Your task to perform on an android device: Open calendar and show me the fourth week of next month Image 0: 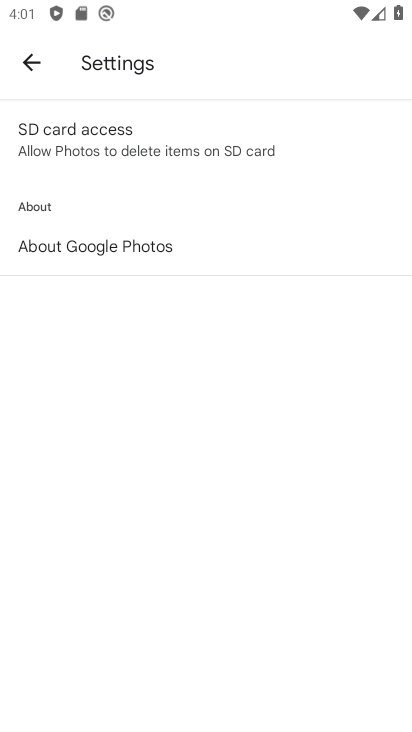
Step 0: click (16, 58)
Your task to perform on an android device: Open calendar and show me the fourth week of next month Image 1: 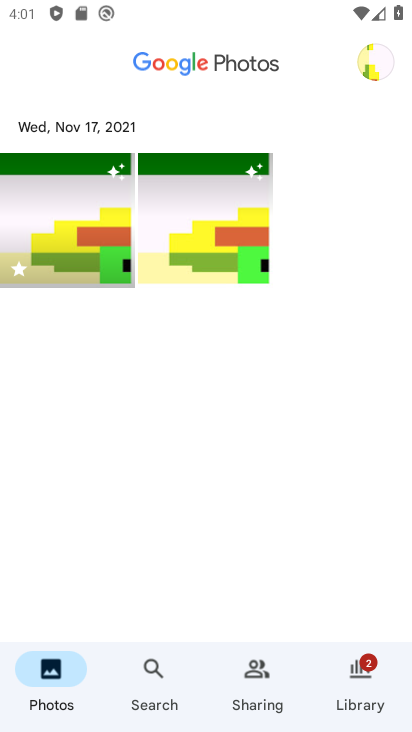
Step 1: press home button
Your task to perform on an android device: Open calendar and show me the fourth week of next month Image 2: 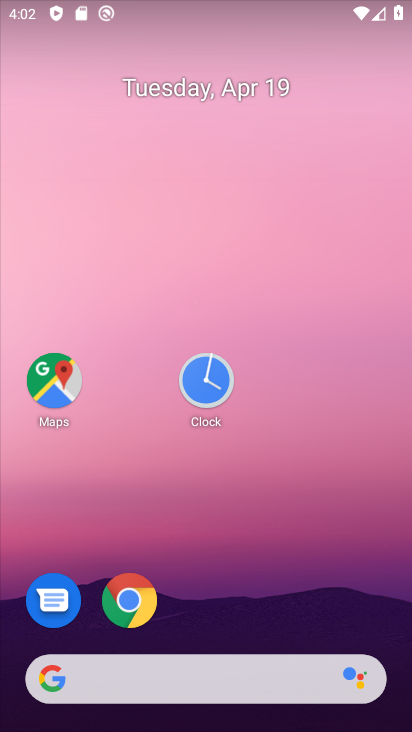
Step 2: drag from (302, 532) to (87, 27)
Your task to perform on an android device: Open calendar and show me the fourth week of next month Image 3: 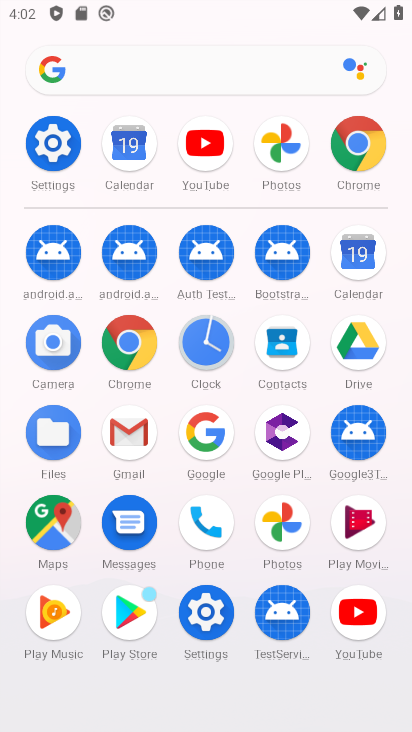
Step 3: click (363, 256)
Your task to perform on an android device: Open calendar and show me the fourth week of next month Image 4: 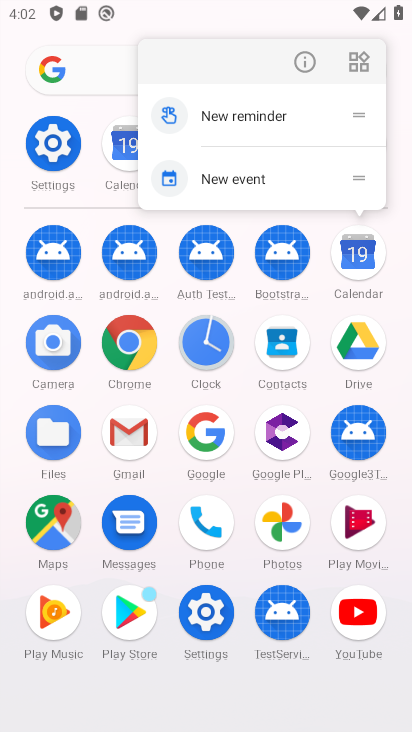
Step 4: click (363, 256)
Your task to perform on an android device: Open calendar and show me the fourth week of next month Image 5: 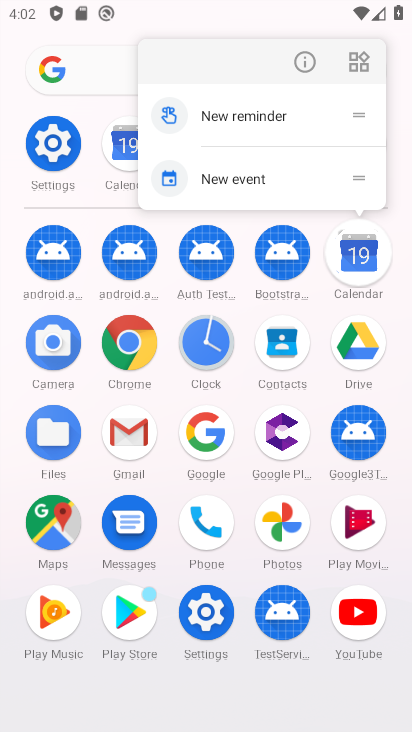
Step 5: click (363, 256)
Your task to perform on an android device: Open calendar and show me the fourth week of next month Image 6: 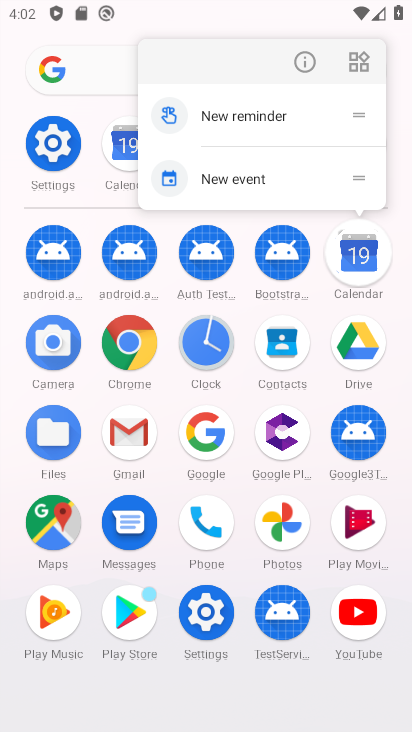
Step 6: click (363, 256)
Your task to perform on an android device: Open calendar and show me the fourth week of next month Image 7: 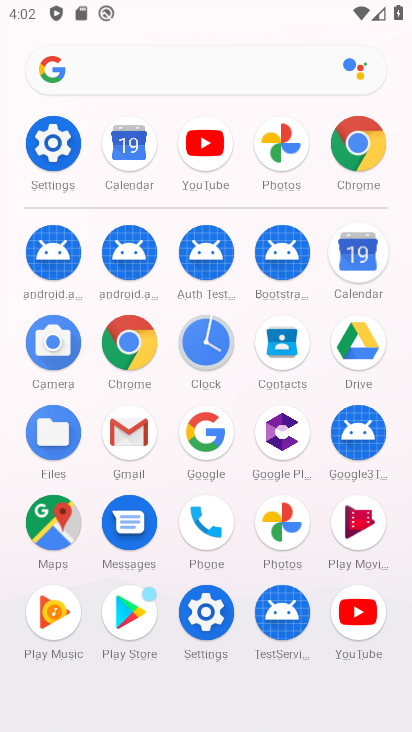
Step 7: click (363, 256)
Your task to perform on an android device: Open calendar and show me the fourth week of next month Image 8: 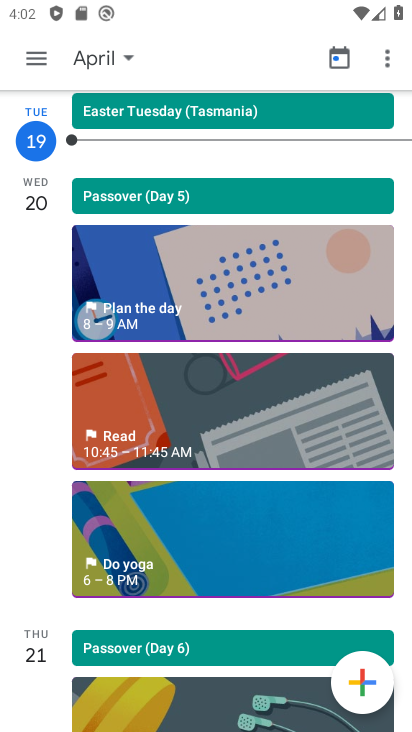
Step 8: click (362, 256)
Your task to perform on an android device: Open calendar and show me the fourth week of next month Image 9: 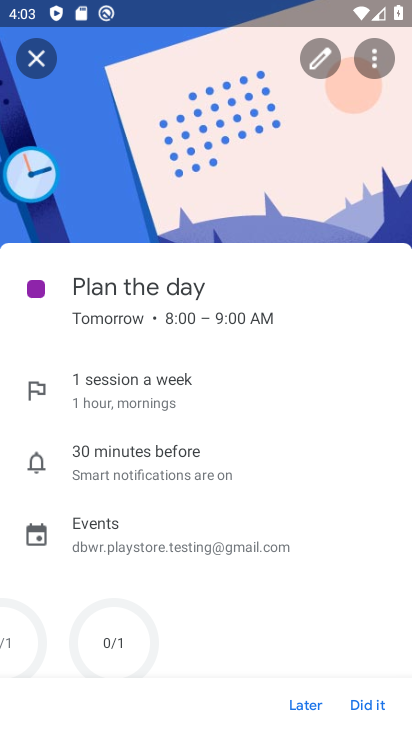
Step 9: click (44, 54)
Your task to perform on an android device: Open calendar and show me the fourth week of next month Image 10: 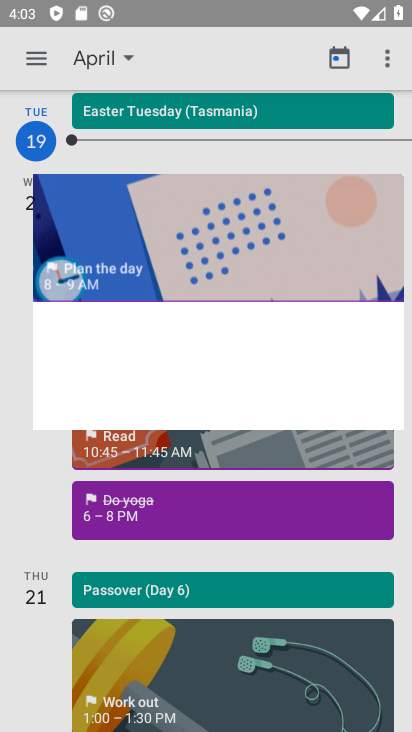
Step 10: click (37, 53)
Your task to perform on an android device: Open calendar and show me the fourth week of next month Image 11: 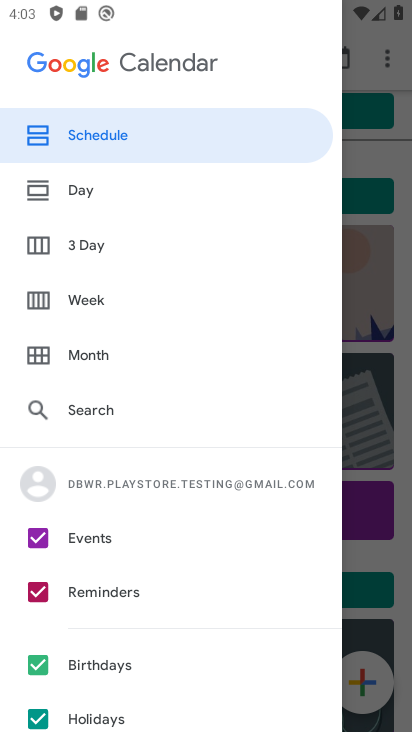
Step 11: click (44, 57)
Your task to perform on an android device: Open calendar and show me the fourth week of next month Image 12: 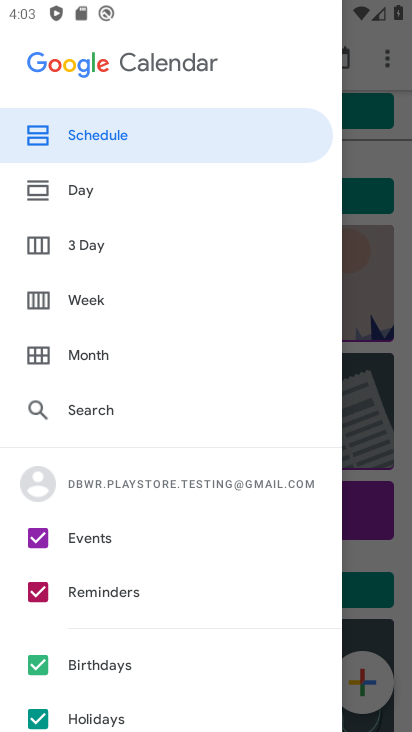
Step 12: click (362, 273)
Your task to perform on an android device: Open calendar and show me the fourth week of next month Image 13: 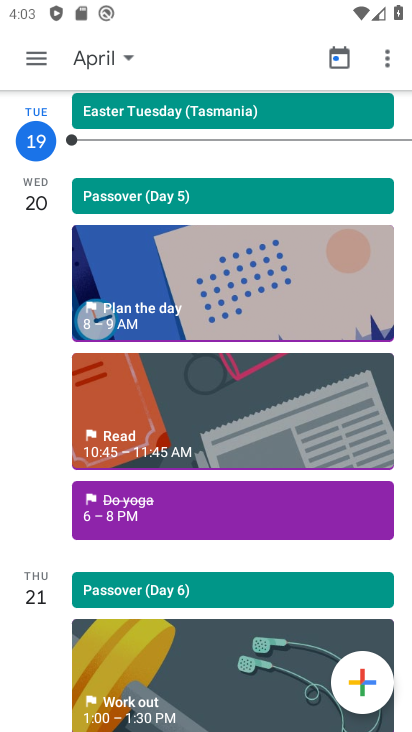
Step 13: click (122, 56)
Your task to perform on an android device: Open calendar and show me the fourth week of next month Image 14: 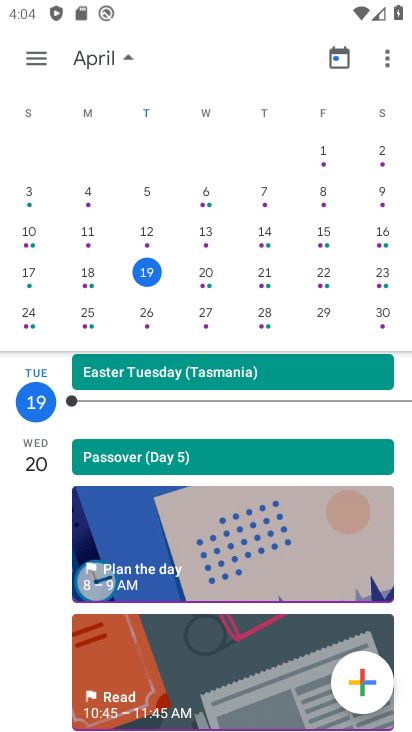
Step 14: click (122, 56)
Your task to perform on an android device: Open calendar and show me the fourth week of next month Image 15: 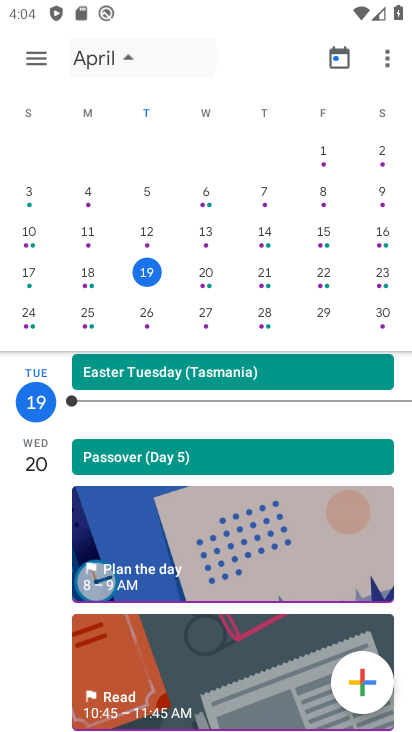
Step 15: click (120, 73)
Your task to perform on an android device: Open calendar and show me the fourth week of next month Image 16: 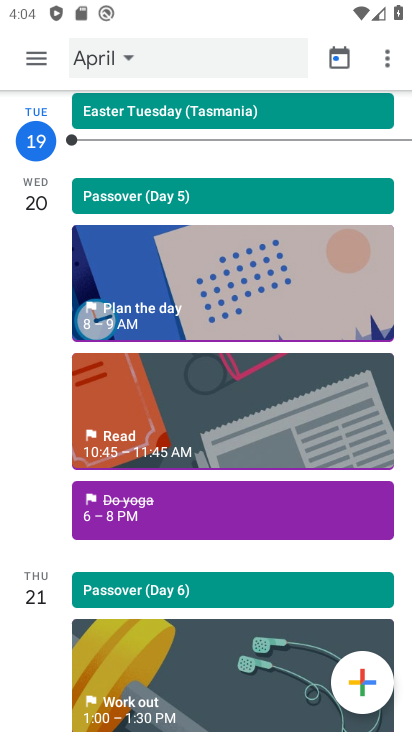
Step 16: click (129, 53)
Your task to perform on an android device: Open calendar and show me the fourth week of next month Image 17: 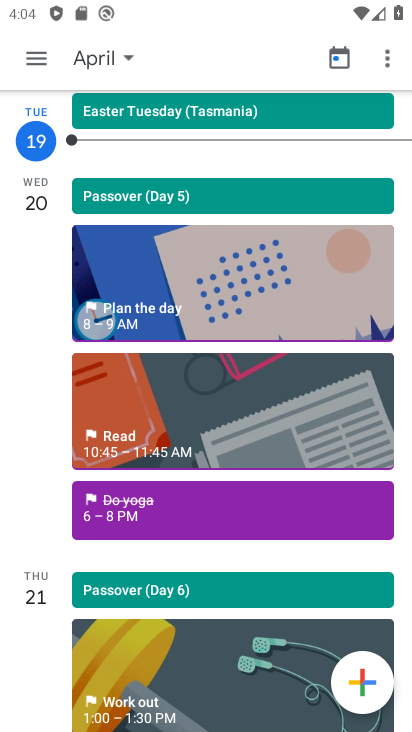
Step 17: click (131, 55)
Your task to perform on an android device: Open calendar and show me the fourth week of next month Image 18: 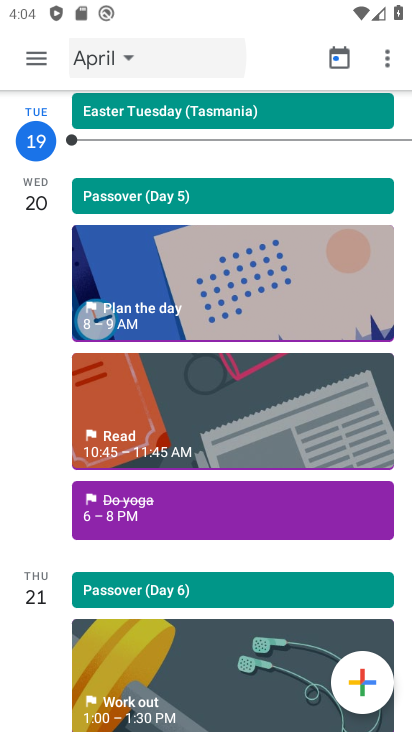
Step 18: click (131, 55)
Your task to perform on an android device: Open calendar and show me the fourth week of next month Image 19: 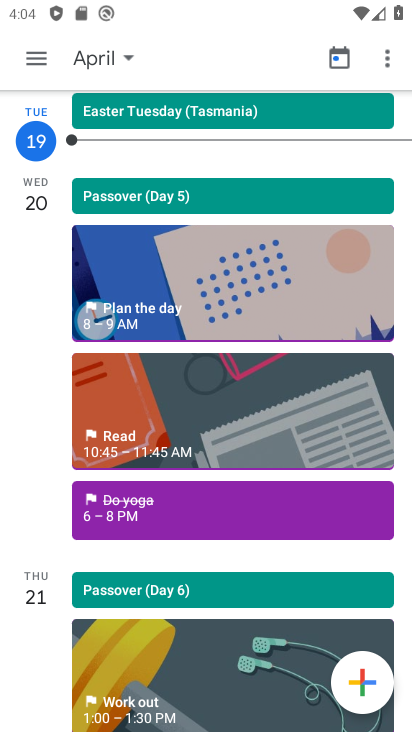
Step 19: click (132, 54)
Your task to perform on an android device: Open calendar and show me the fourth week of next month Image 20: 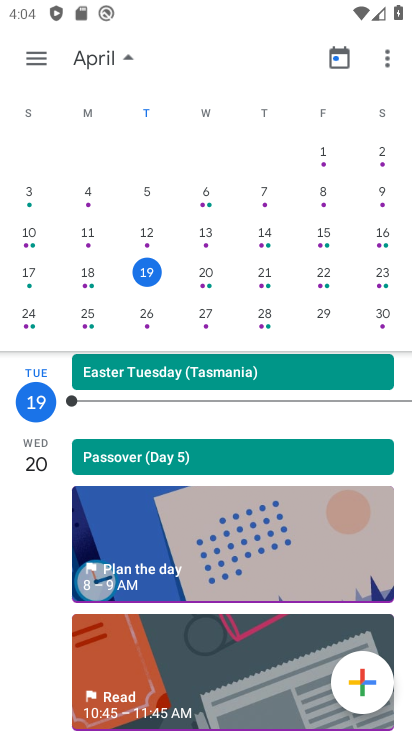
Step 20: click (128, 54)
Your task to perform on an android device: Open calendar and show me the fourth week of next month Image 21: 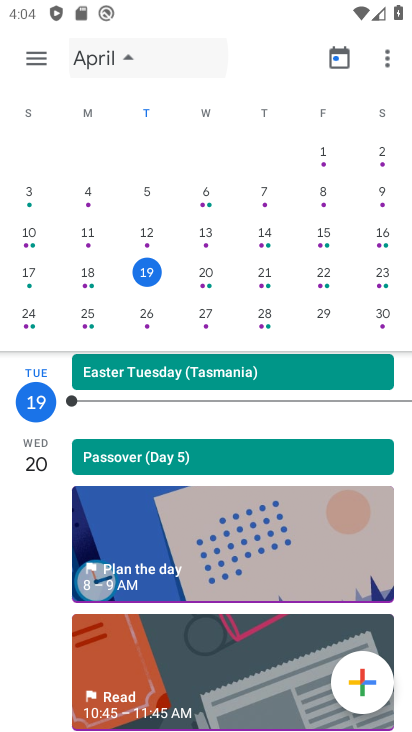
Step 21: click (128, 53)
Your task to perform on an android device: Open calendar and show me the fourth week of next month Image 22: 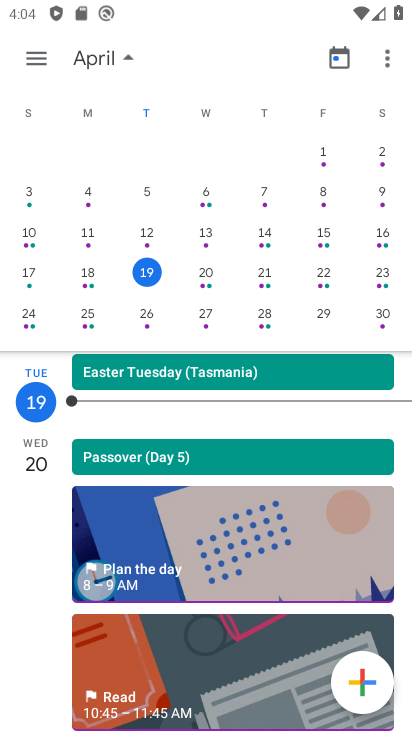
Step 22: click (126, 51)
Your task to perform on an android device: Open calendar and show me the fourth week of next month Image 23: 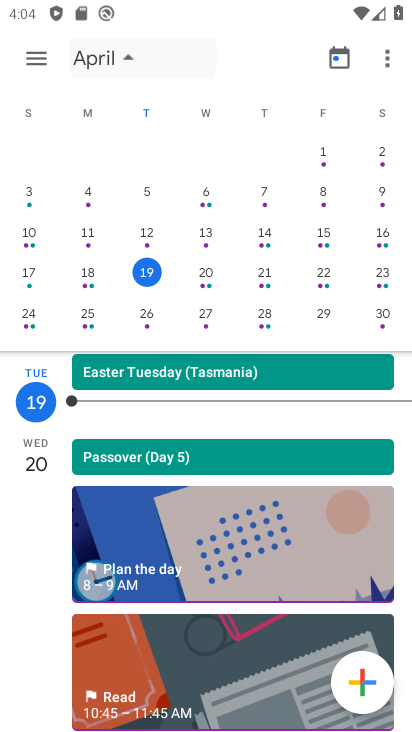
Step 23: drag from (281, 271) to (16, 231)
Your task to perform on an android device: Open calendar and show me the fourth week of next month Image 24: 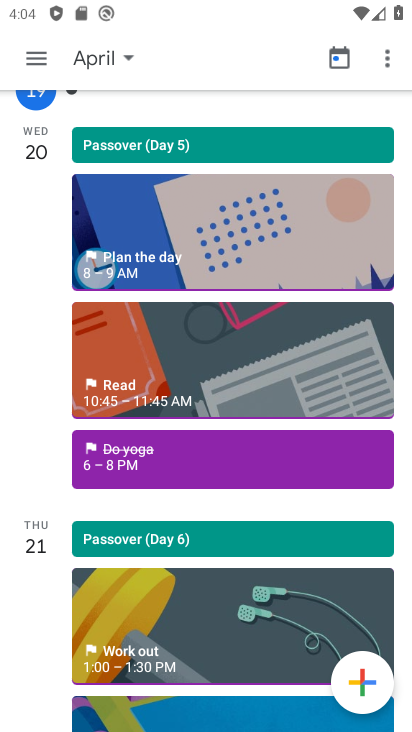
Step 24: click (120, 52)
Your task to perform on an android device: Open calendar and show me the fourth week of next month Image 25: 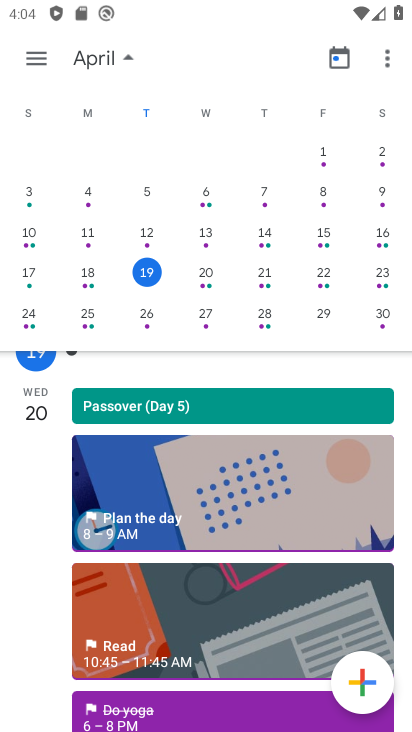
Step 25: drag from (242, 251) to (17, 308)
Your task to perform on an android device: Open calendar and show me the fourth week of next month Image 26: 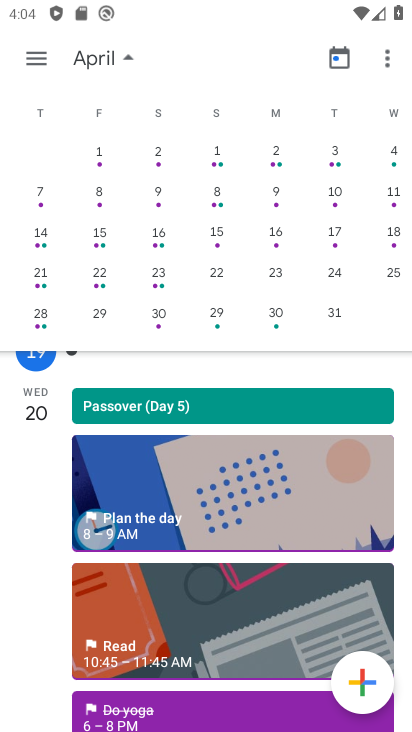
Step 26: drag from (226, 266) to (4, 303)
Your task to perform on an android device: Open calendar and show me the fourth week of next month Image 27: 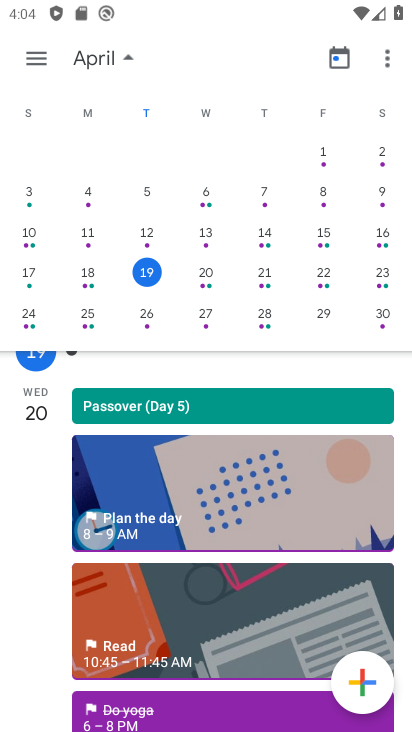
Step 27: drag from (245, 226) to (17, 315)
Your task to perform on an android device: Open calendar and show me the fourth week of next month Image 28: 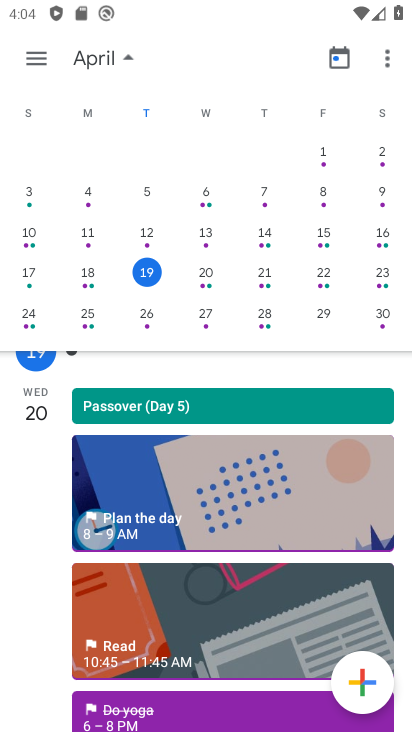
Step 28: drag from (264, 247) to (4, 258)
Your task to perform on an android device: Open calendar and show me the fourth week of next month Image 29: 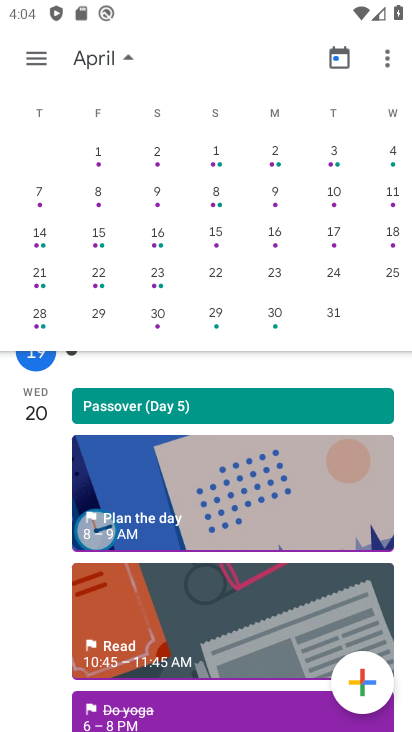
Step 29: drag from (173, 247) to (55, 224)
Your task to perform on an android device: Open calendar and show me the fourth week of next month Image 30: 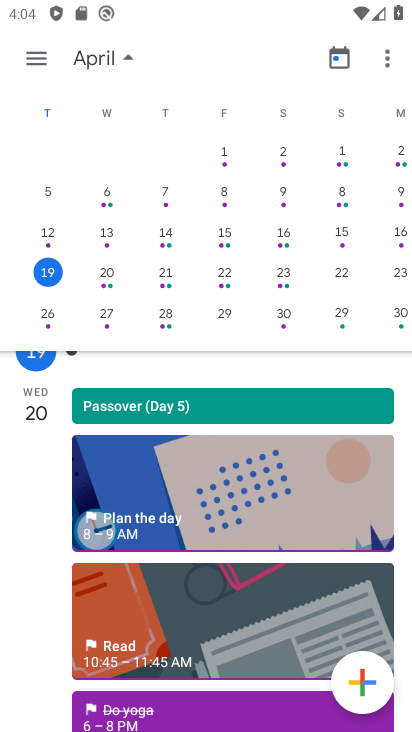
Step 30: click (14, 268)
Your task to perform on an android device: Open calendar and show me the fourth week of next month Image 31: 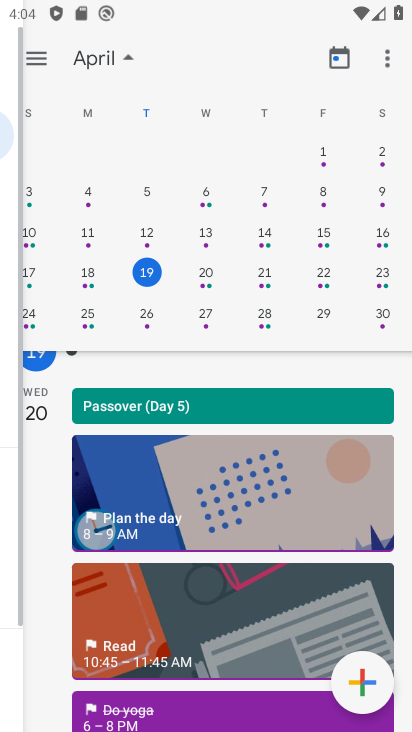
Step 31: click (21, 255)
Your task to perform on an android device: Open calendar and show me the fourth week of next month Image 32: 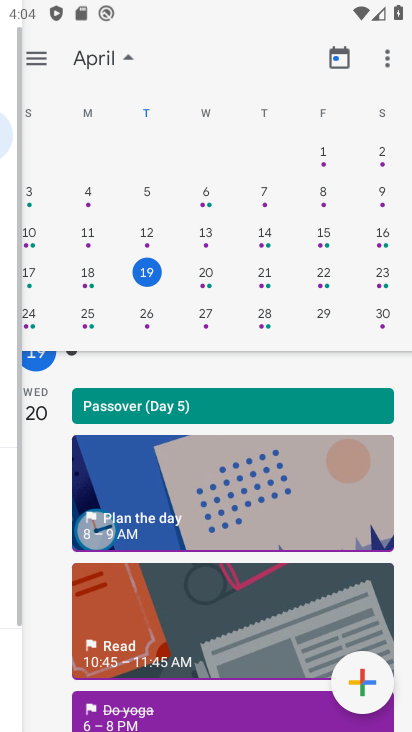
Step 32: drag from (229, 291) to (8, 278)
Your task to perform on an android device: Open calendar and show me the fourth week of next month Image 33: 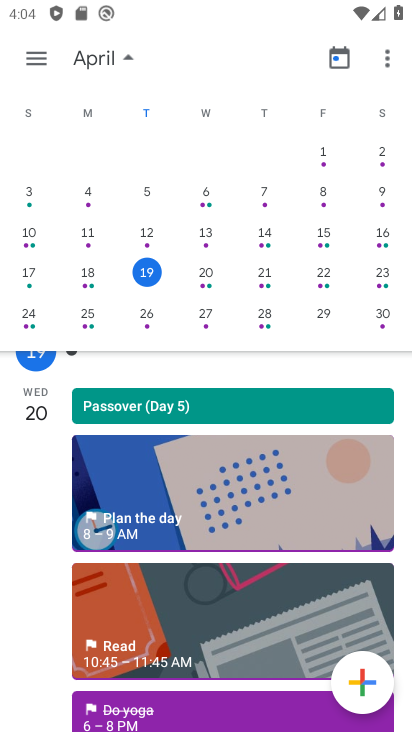
Step 33: drag from (180, 285) to (65, 306)
Your task to perform on an android device: Open calendar and show me the fourth week of next month Image 34: 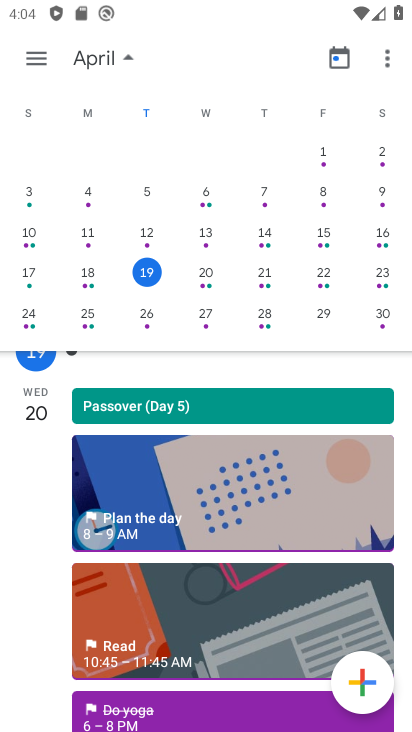
Step 34: drag from (293, 263) to (18, 239)
Your task to perform on an android device: Open calendar and show me the fourth week of next month Image 35: 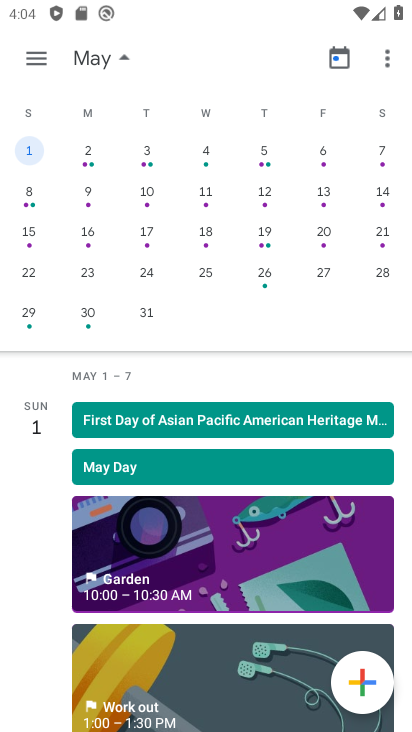
Step 35: drag from (180, 234) to (10, 302)
Your task to perform on an android device: Open calendar and show me the fourth week of next month Image 36: 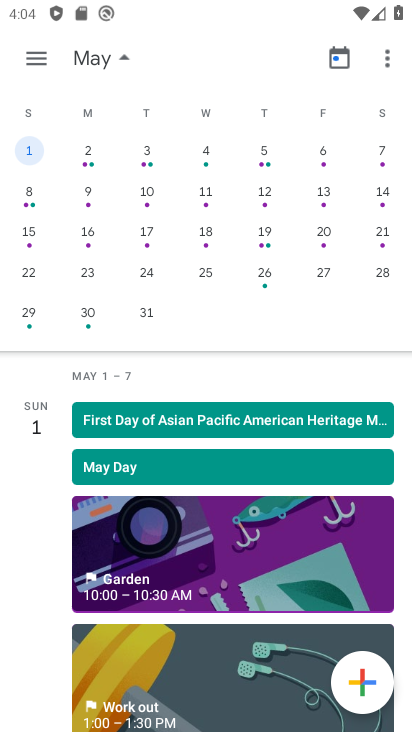
Step 36: click (15, 240)
Your task to perform on an android device: Open calendar and show me the fourth week of next month Image 37: 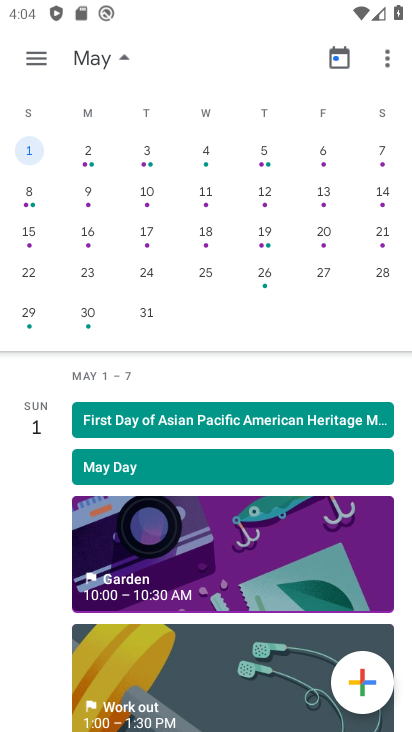
Step 37: click (86, 228)
Your task to perform on an android device: Open calendar and show me the fourth week of next month Image 38: 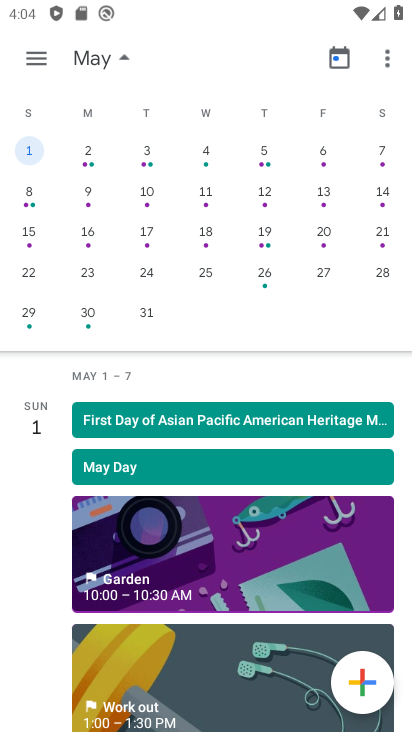
Step 38: click (88, 228)
Your task to perform on an android device: Open calendar and show me the fourth week of next month Image 39: 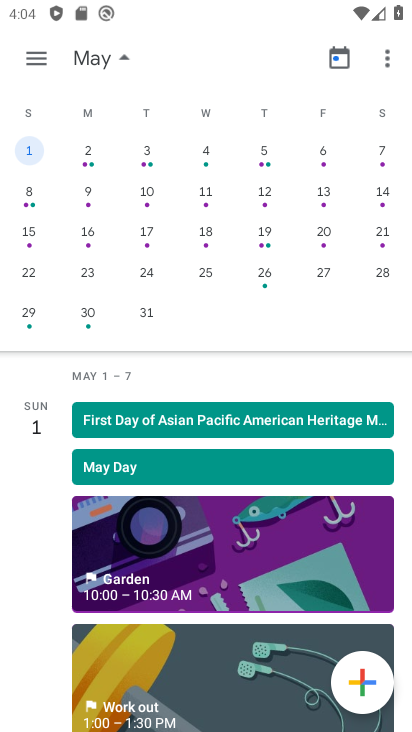
Step 39: click (92, 230)
Your task to perform on an android device: Open calendar and show me the fourth week of next month Image 40: 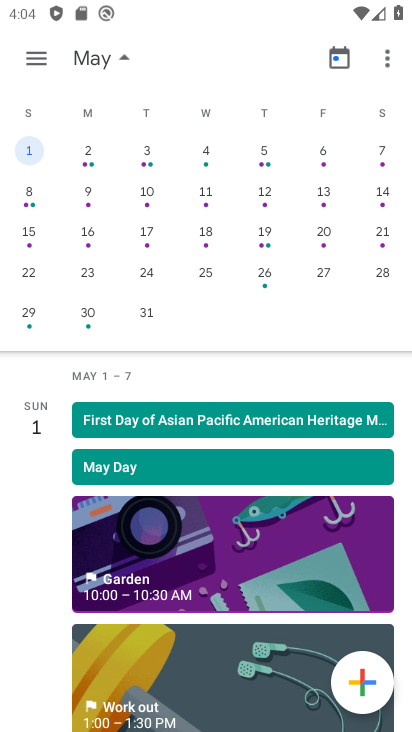
Step 40: click (93, 232)
Your task to perform on an android device: Open calendar and show me the fourth week of next month Image 41: 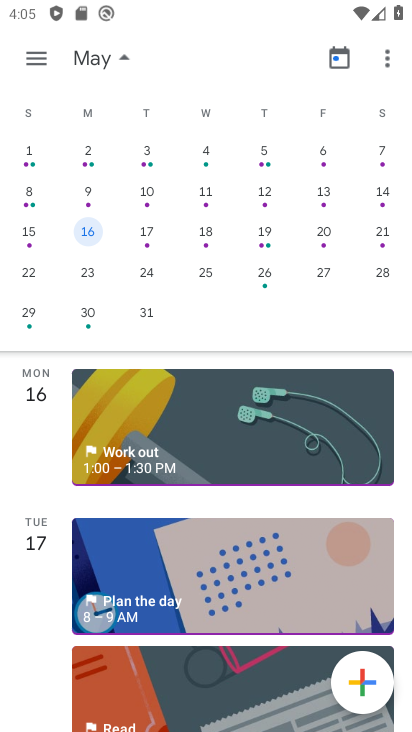
Step 41: task complete